Your task to perform on an android device: Turn on the flashlight Image 0: 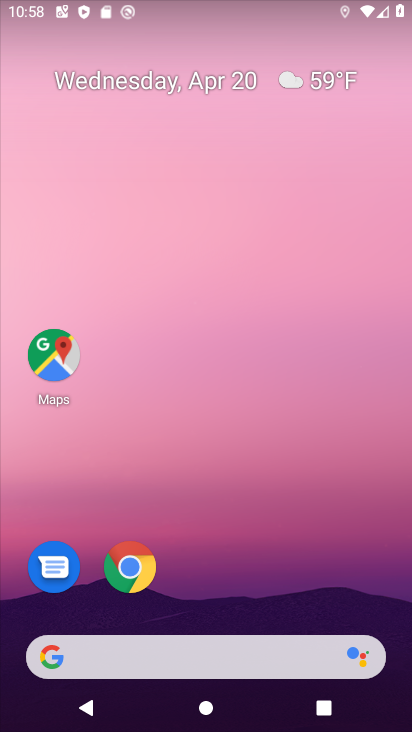
Step 0: drag from (257, 563) to (210, 87)
Your task to perform on an android device: Turn on the flashlight Image 1: 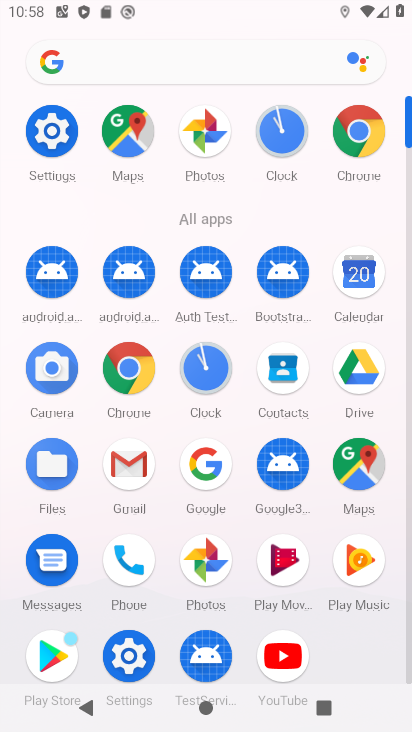
Step 1: click (51, 141)
Your task to perform on an android device: Turn on the flashlight Image 2: 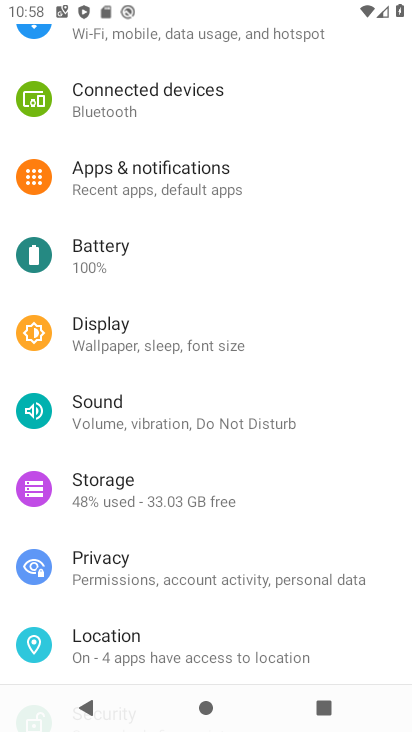
Step 2: task complete